Your task to perform on an android device: turn vacation reply on in the gmail app Image 0: 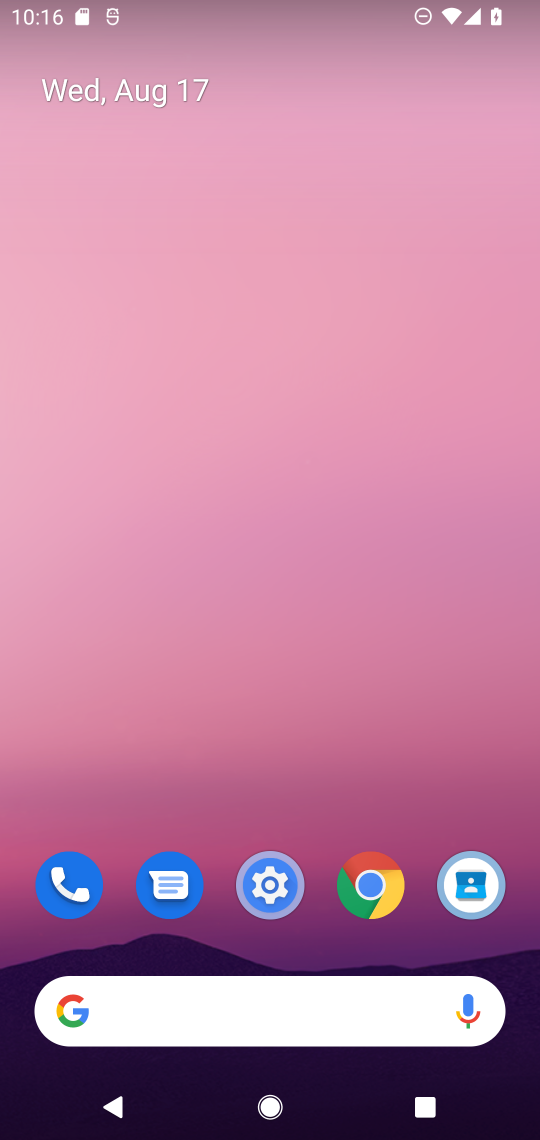
Step 0: drag from (421, 936) to (400, 52)
Your task to perform on an android device: turn vacation reply on in the gmail app Image 1: 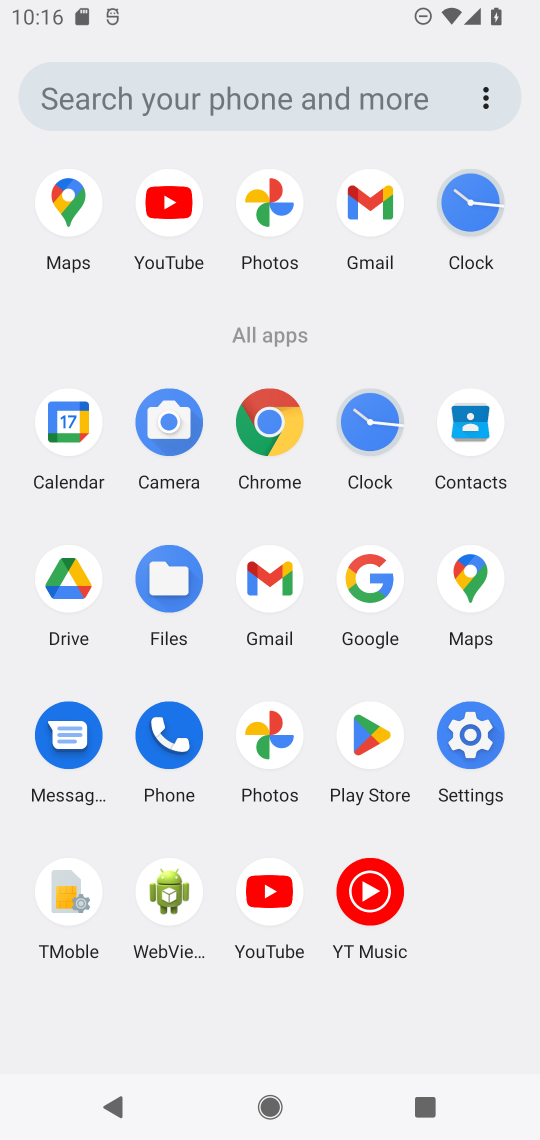
Step 1: click (268, 581)
Your task to perform on an android device: turn vacation reply on in the gmail app Image 2: 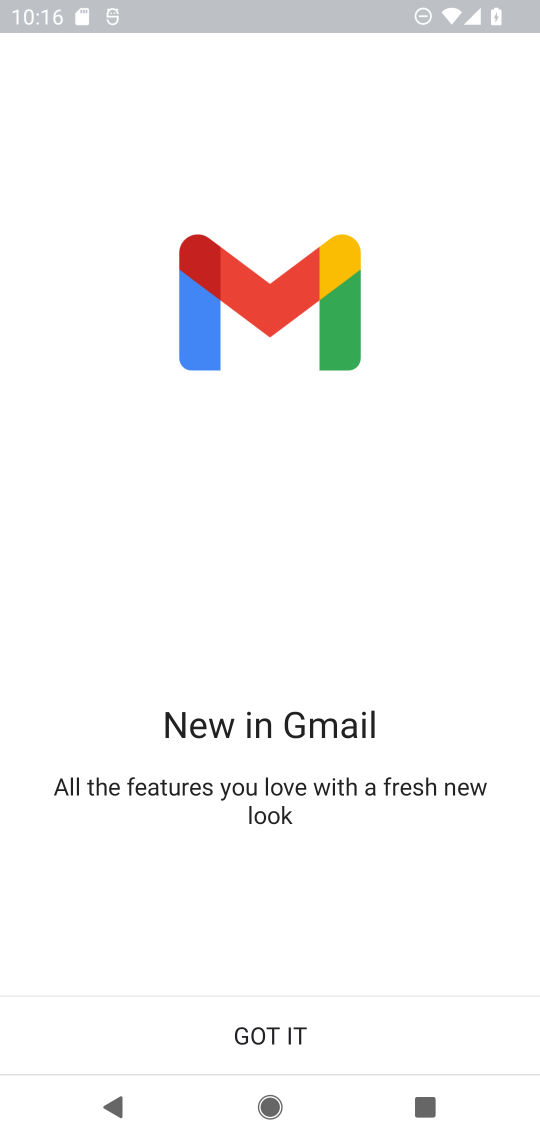
Step 2: click (258, 1028)
Your task to perform on an android device: turn vacation reply on in the gmail app Image 3: 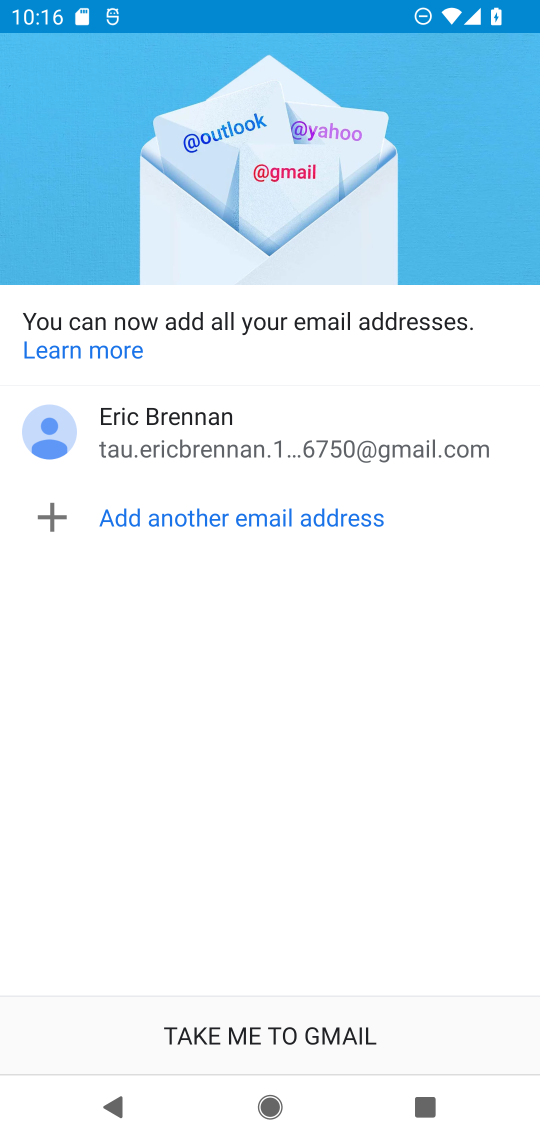
Step 3: click (258, 1028)
Your task to perform on an android device: turn vacation reply on in the gmail app Image 4: 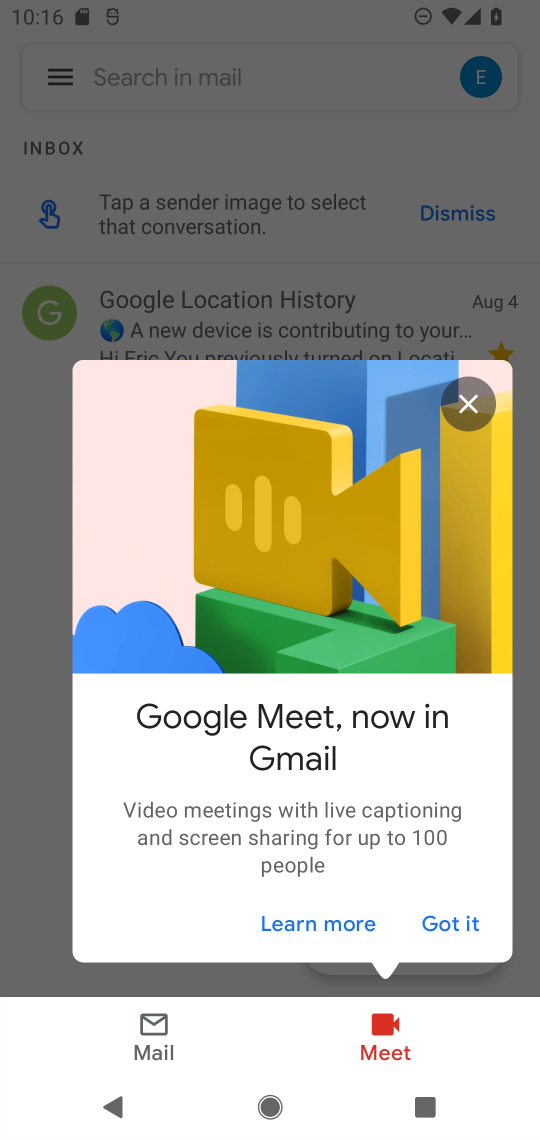
Step 4: click (449, 921)
Your task to perform on an android device: turn vacation reply on in the gmail app Image 5: 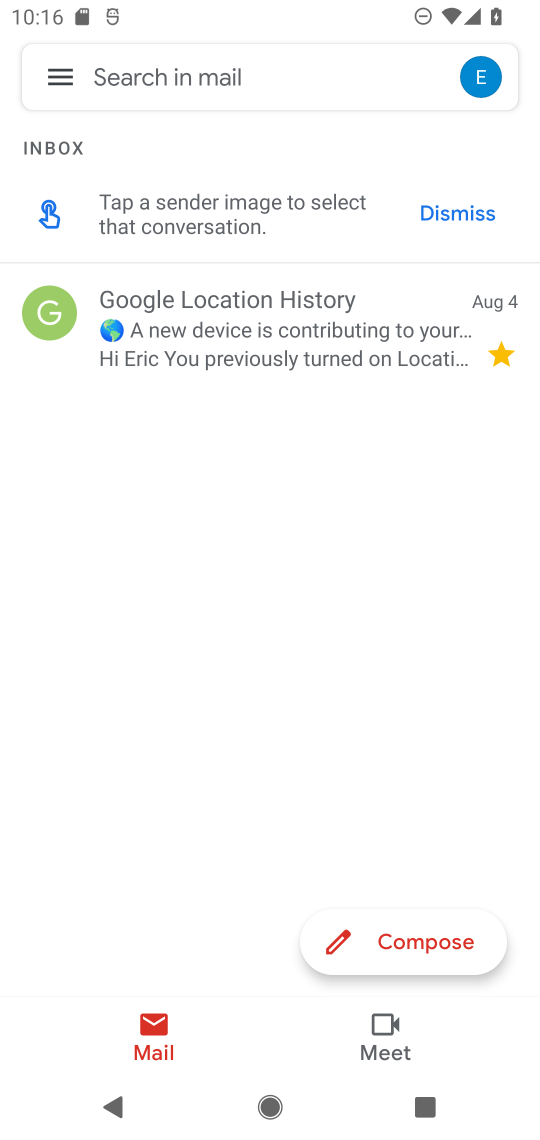
Step 5: click (56, 74)
Your task to perform on an android device: turn vacation reply on in the gmail app Image 6: 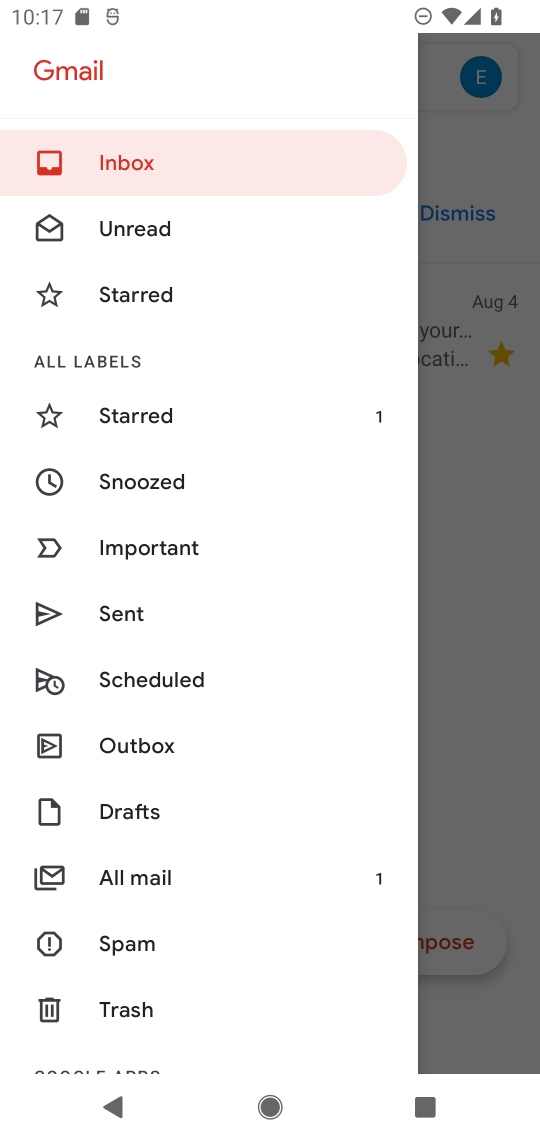
Step 6: drag from (231, 956) to (256, 329)
Your task to perform on an android device: turn vacation reply on in the gmail app Image 7: 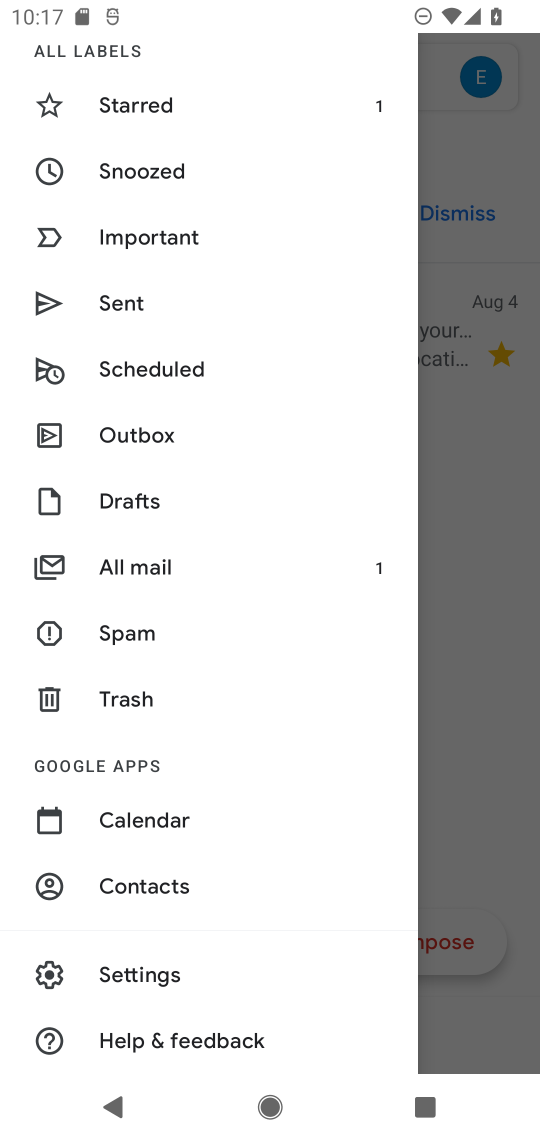
Step 7: click (136, 978)
Your task to perform on an android device: turn vacation reply on in the gmail app Image 8: 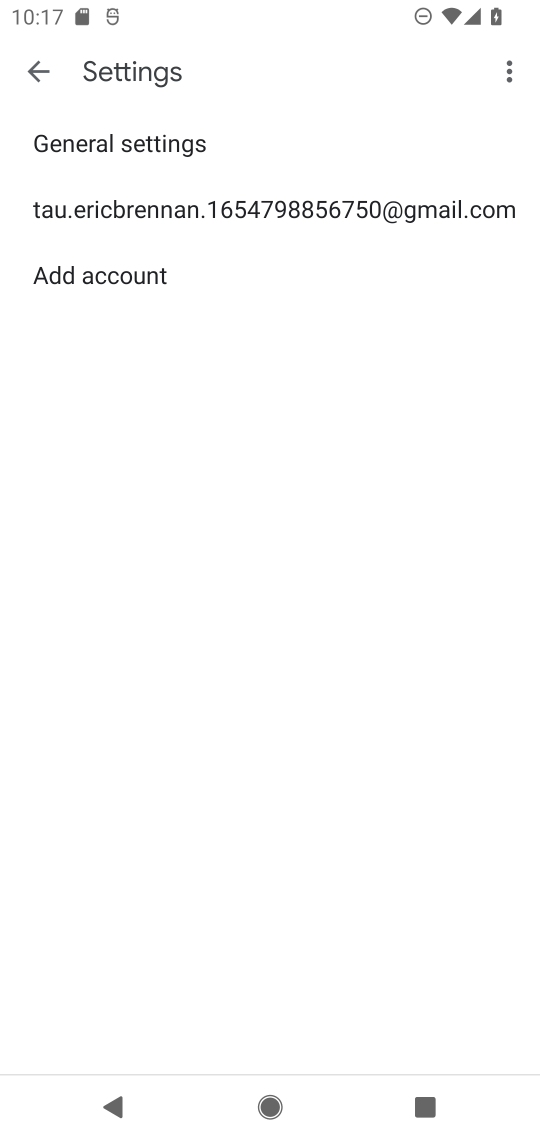
Step 8: click (239, 205)
Your task to perform on an android device: turn vacation reply on in the gmail app Image 9: 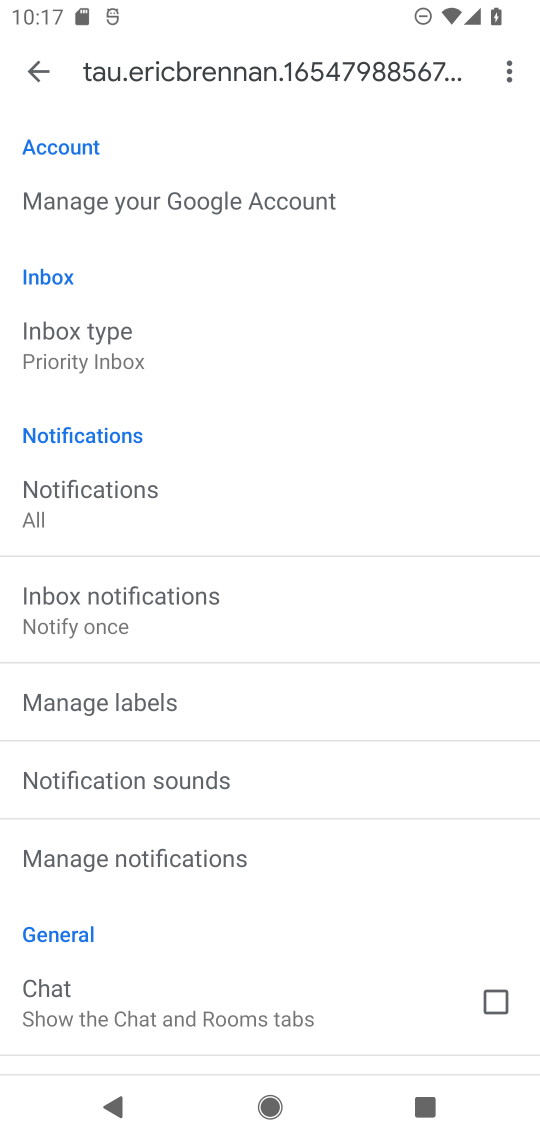
Step 9: drag from (337, 918) to (375, 206)
Your task to perform on an android device: turn vacation reply on in the gmail app Image 10: 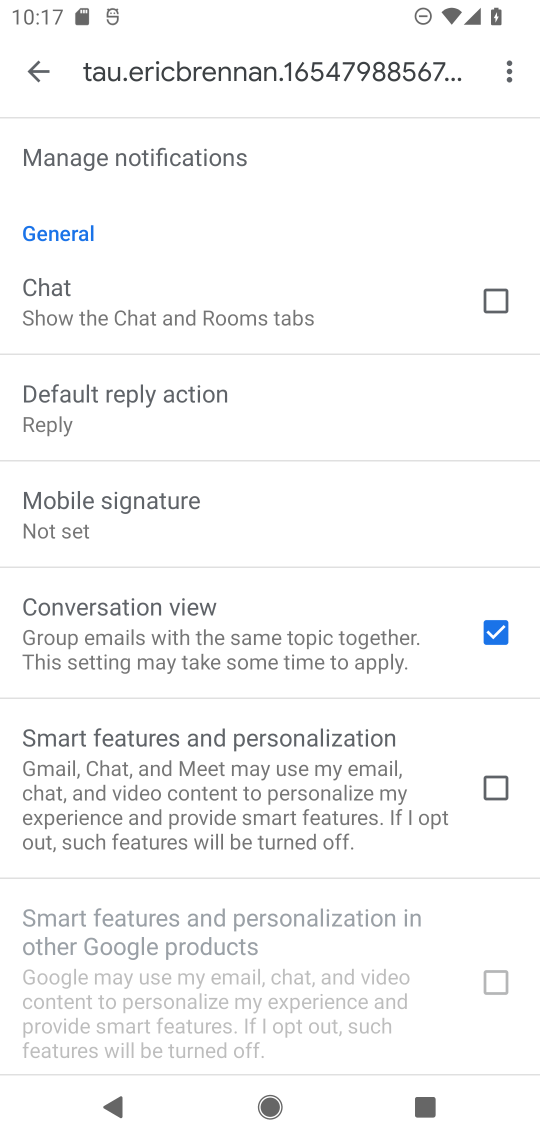
Step 10: drag from (364, 800) to (371, 254)
Your task to perform on an android device: turn vacation reply on in the gmail app Image 11: 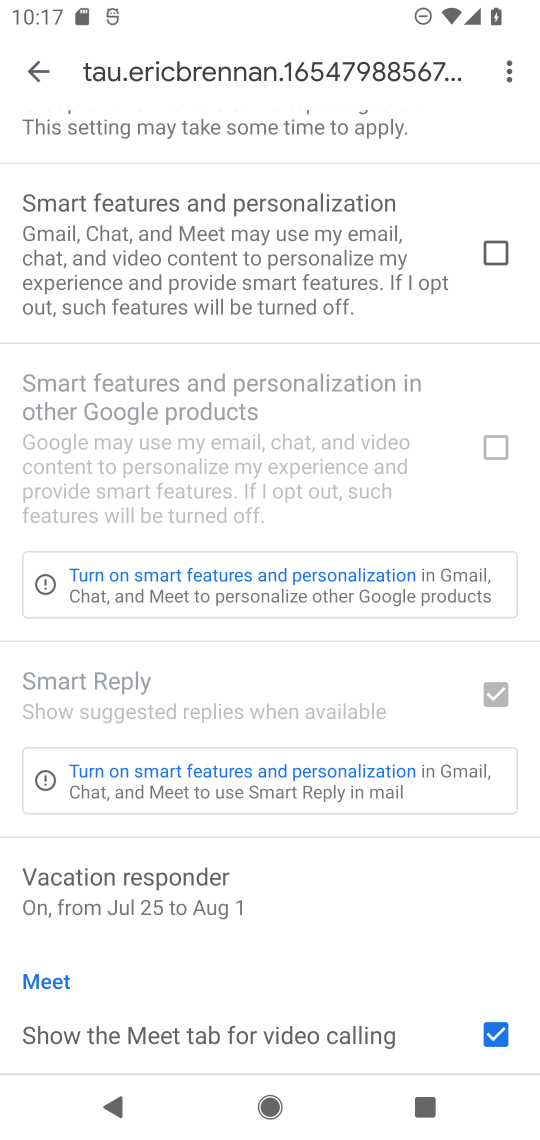
Step 11: click (168, 892)
Your task to perform on an android device: turn vacation reply on in the gmail app Image 12: 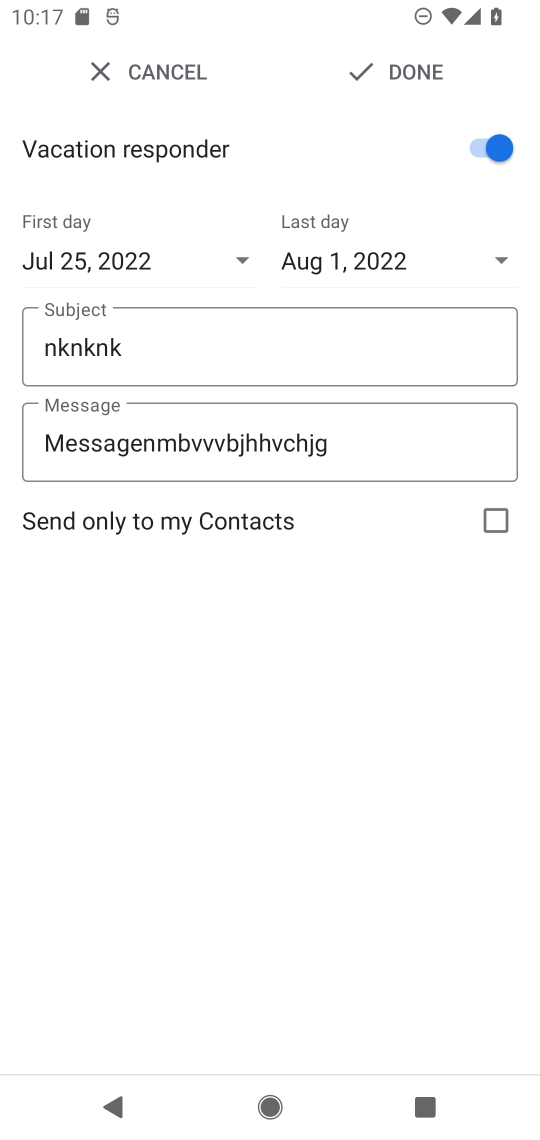
Step 12: click (402, 68)
Your task to perform on an android device: turn vacation reply on in the gmail app Image 13: 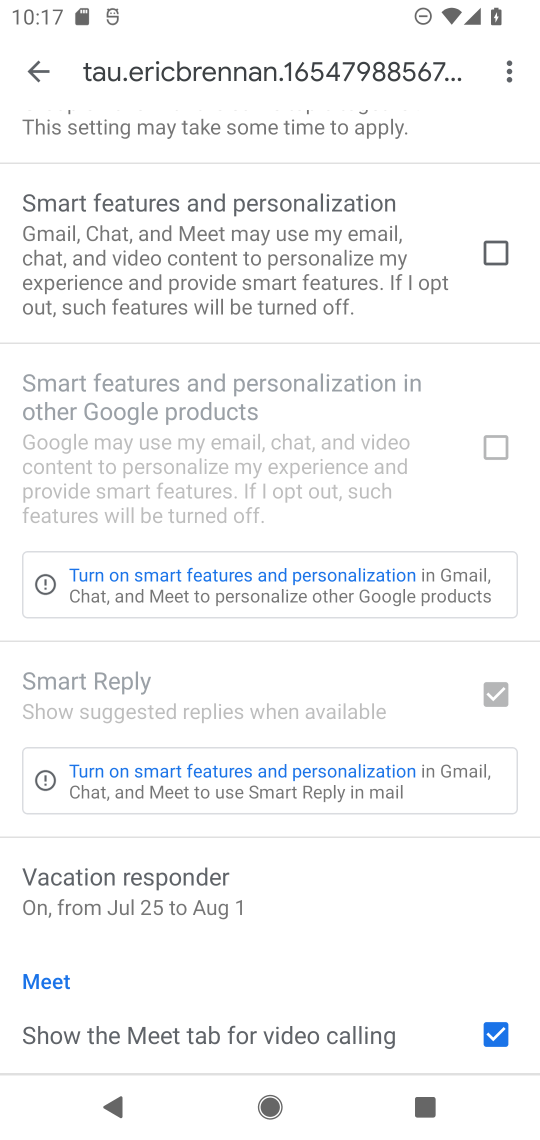
Step 13: task complete